Your task to perform on an android device: View the shopping cart on ebay. Search for "logitech g502" on ebay, select the first entry, add it to the cart, then select checkout. Image 0: 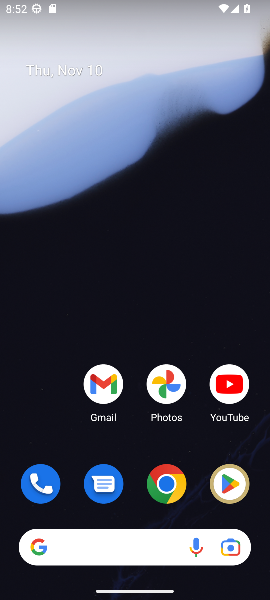
Step 0: click (170, 487)
Your task to perform on an android device: View the shopping cart on ebay. Search for "logitech g502" on ebay, select the first entry, add it to the cart, then select checkout. Image 1: 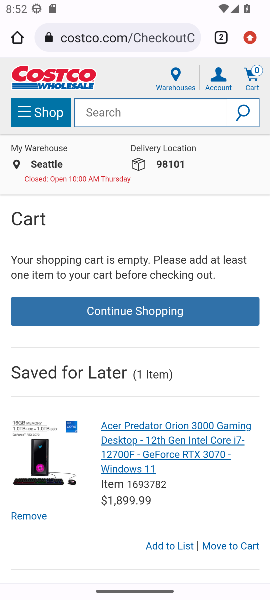
Step 1: click (105, 37)
Your task to perform on an android device: View the shopping cart on ebay. Search for "logitech g502" on ebay, select the first entry, add it to the cart, then select checkout. Image 2: 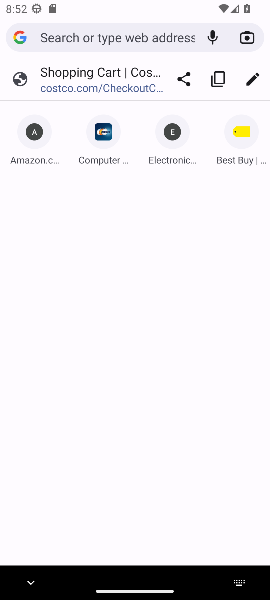
Step 2: type "ebay.com"
Your task to perform on an android device: View the shopping cart on ebay. Search for "logitech g502" on ebay, select the first entry, add it to the cart, then select checkout. Image 3: 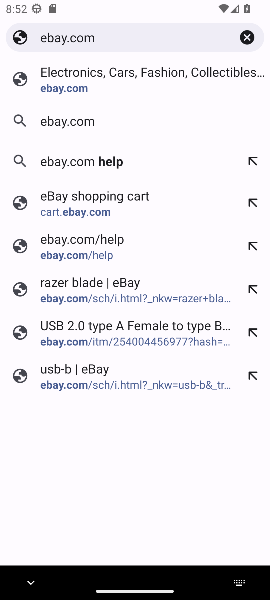
Step 3: click (72, 95)
Your task to perform on an android device: View the shopping cart on ebay. Search for "logitech g502" on ebay, select the first entry, add it to the cart, then select checkout. Image 4: 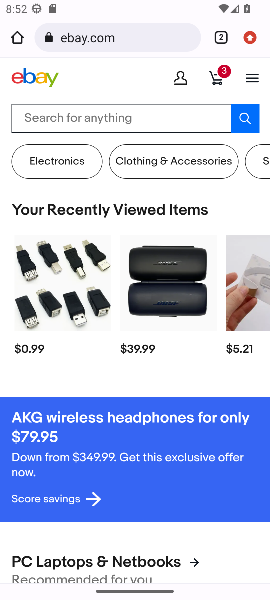
Step 4: click (223, 80)
Your task to perform on an android device: View the shopping cart on ebay. Search for "logitech g502" on ebay, select the first entry, add it to the cart, then select checkout. Image 5: 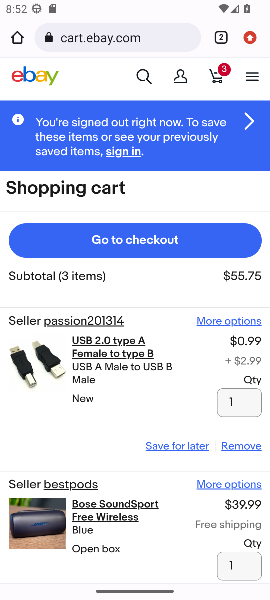
Step 5: drag from (157, 419) to (174, 324)
Your task to perform on an android device: View the shopping cart on ebay. Search for "logitech g502" on ebay, select the first entry, add it to the cart, then select checkout. Image 6: 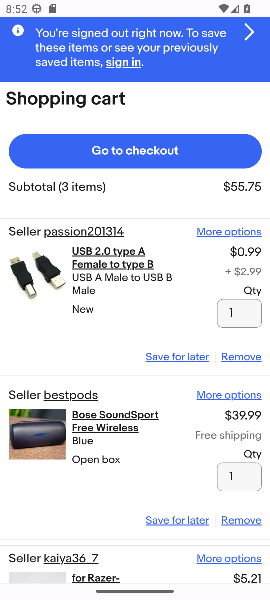
Step 6: drag from (117, 215) to (136, 432)
Your task to perform on an android device: View the shopping cart on ebay. Search for "logitech g502" on ebay, select the first entry, add it to the cart, then select checkout. Image 7: 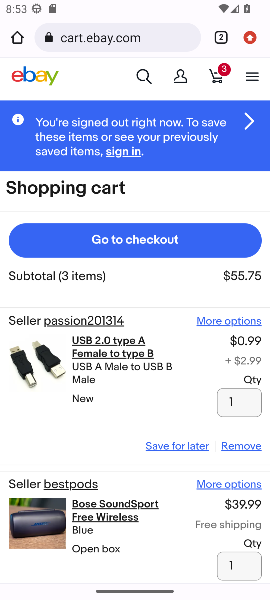
Step 7: click (141, 81)
Your task to perform on an android device: View the shopping cart on ebay. Search for "logitech g502" on ebay, select the first entry, add it to the cart, then select checkout. Image 8: 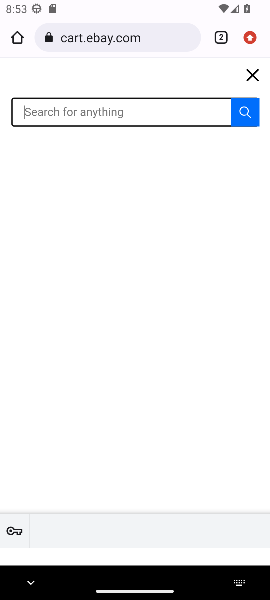
Step 8: type "logitech g502"
Your task to perform on an android device: View the shopping cart on ebay. Search for "logitech g502" on ebay, select the first entry, add it to the cart, then select checkout. Image 9: 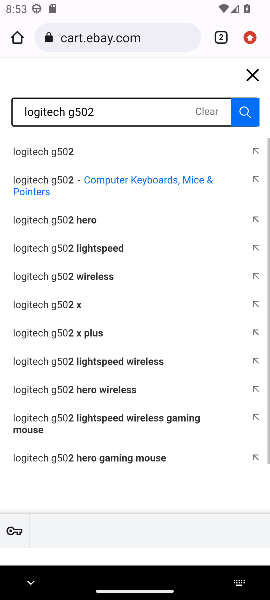
Step 9: click (54, 156)
Your task to perform on an android device: View the shopping cart on ebay. Search for "logitech g502" on ebay, select the first entry, add it to the cart, then select checkout. Image 10: 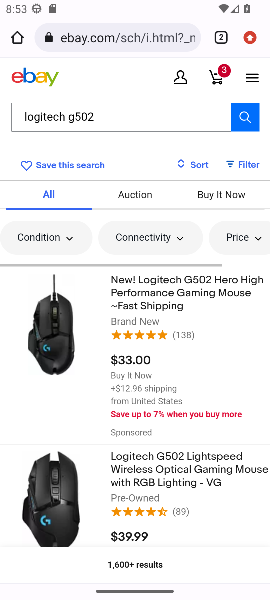
Step 10: click (104, 346)
Your task to perform on an android device: View the shopping cart on ebay. Search for "logitech g502" on ebay, select the first entry, add it to the cart, then select checkout. Image 11: 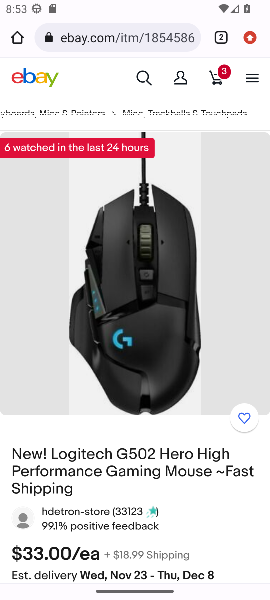
Step 11: drag from (134, 472) to (120, 237)
Your task to perform on an android device: View the shopping cart on ebay. Search for "logitech g502" on ebay, select the first entry, add it to the cart, then select checkout. Image 12: 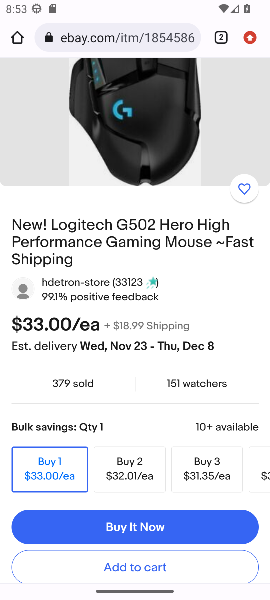
Step 12: drag from (134, 494) to (126, 311)
Your task to perform on an android device: View the shopping cart on ebay. Search for "logitech g502" on ebay, select the first entry, add it to the cart, then select checkout. Image 13: 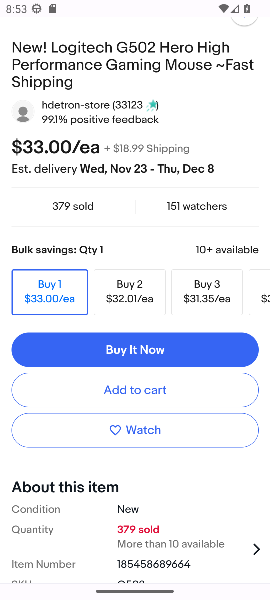
Step 13: click (122, 393)
Your task to perform on an android device: View the shopping cart on ebay. Search for "logitech g502" on ebay, select the first entry, add it to the cart, then select checkout. Image 14: 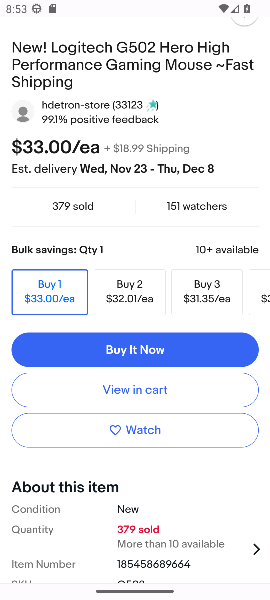
Step 14: click (124, 390)
Your task to perform on an android device: View the shopping cart on ebay. Search for "logitech g502" on ebay, select the first entry, add it to the cart, then select checkout. Image 15: 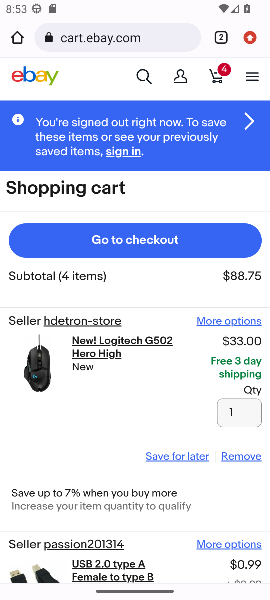
Step 15: click (126, 244)
Your task to perform on an android device: View the shopping cart on ebay. Search for "logitech g502" on ebay, select the first entry, add it to the cart, then select checkout. Image 16: 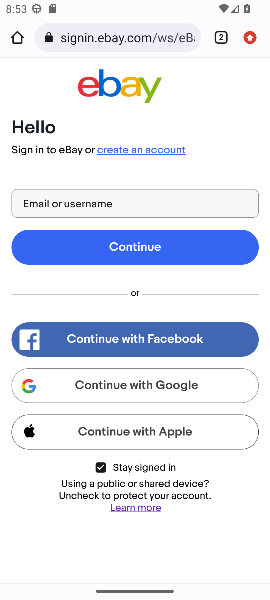
Step 16: task complete